Your task to perform on an android device: Open Youtube and go to the subscriptions tab Image 0: 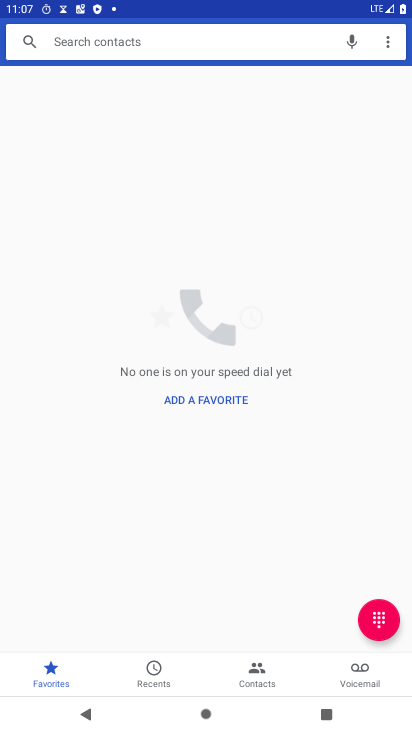
Step 0: press home button
Your task to perform on an android device: Open Youtube and go to the subscriptions tab Image 1: 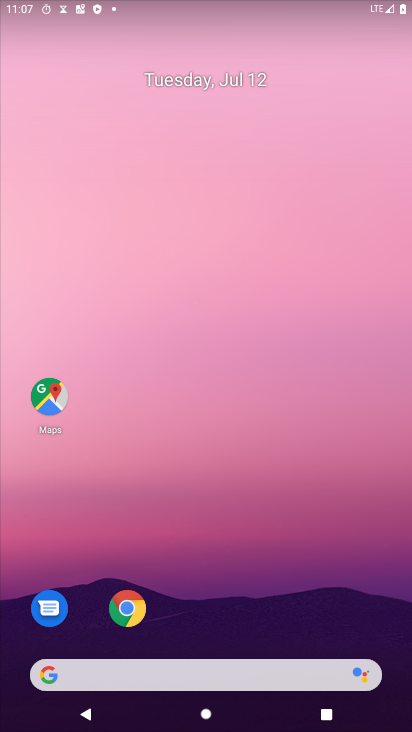
Step 1: drag from (263, 606) to (261, 155)
Your task to perform on an android device: Open Youtube and go to the subscriptions tab Image 2: 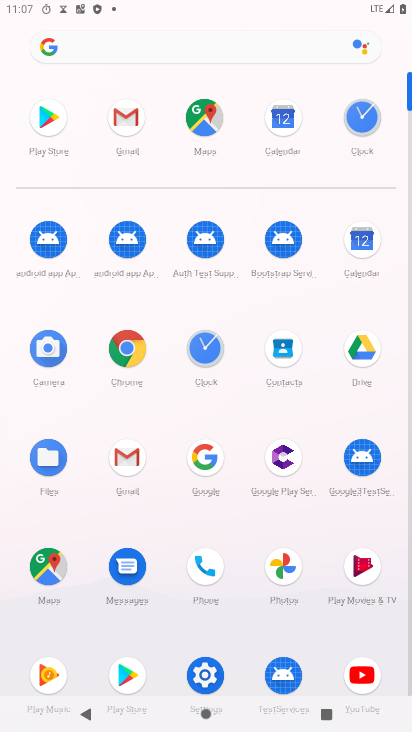
Step 2: click (364, 666)
Your task to perform on an android device: Open Youtube and go to the subscriptions tab Image 3: 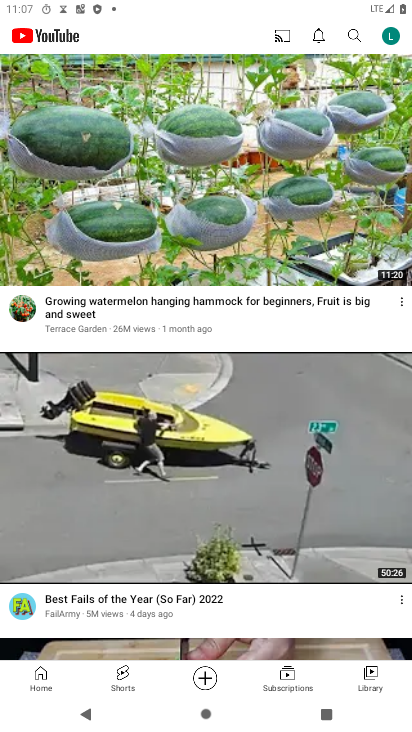
Step 3: click (295, 679)
Your task to perform on an android device: Open Youtube and go to the subscriptions tab Image 4: 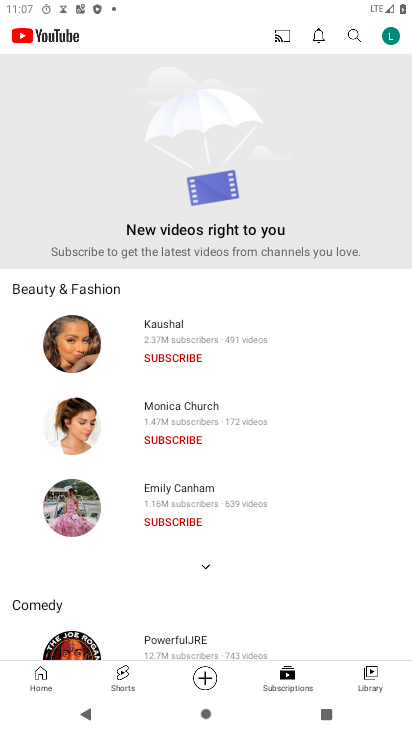
Step 4: task complete